Your task to perform on an android device: Install the Weather app Image 0: 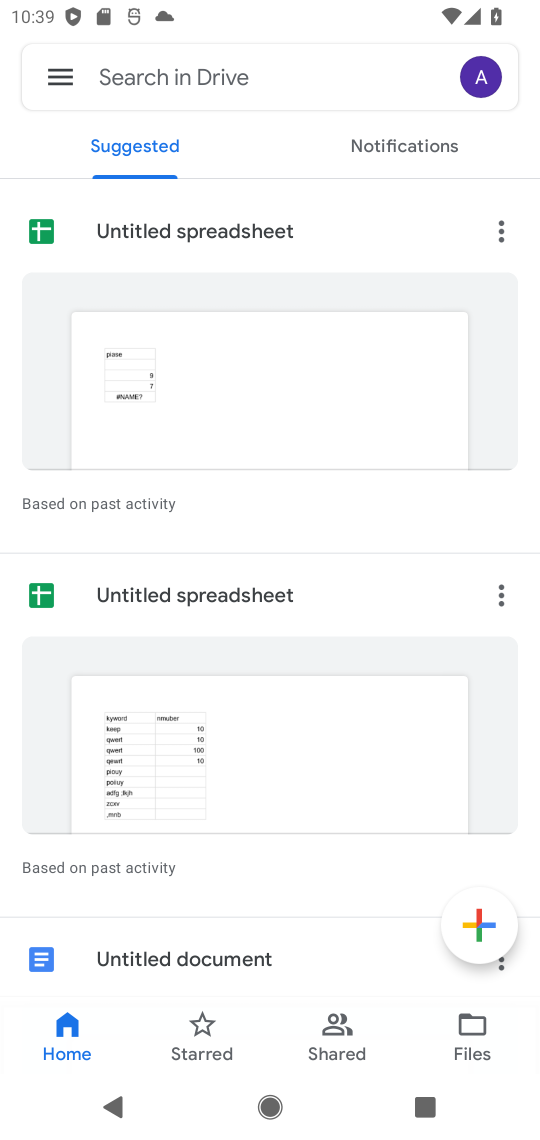
Step 0: press home button
Your task to perform on an android device: Install the Weather app Image 1: 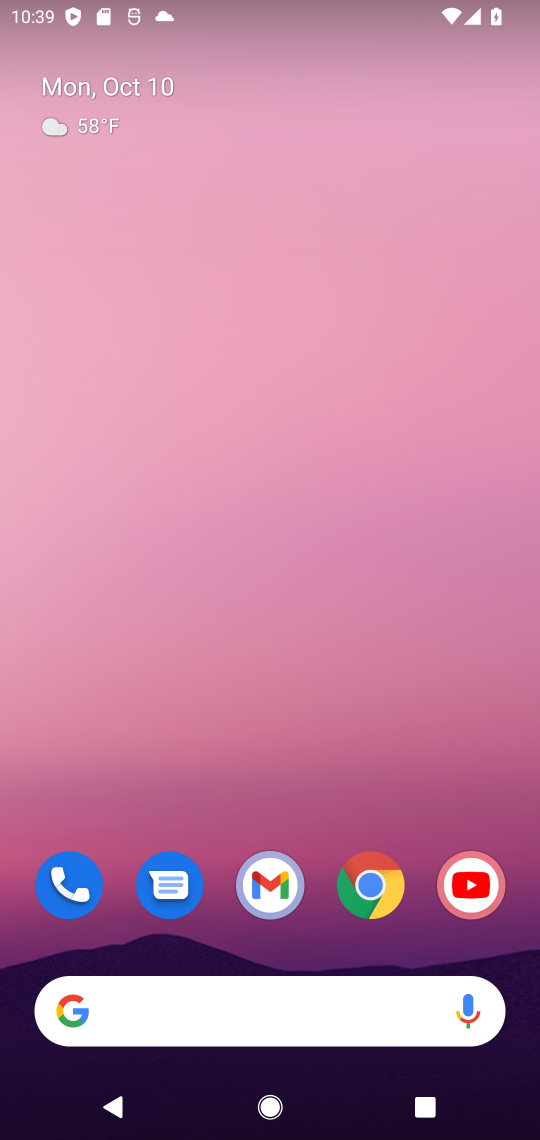
Step 1: drag from (397, 749) to (426, 227)
Your task to perform on an android device: Install the Weather app Image 2: 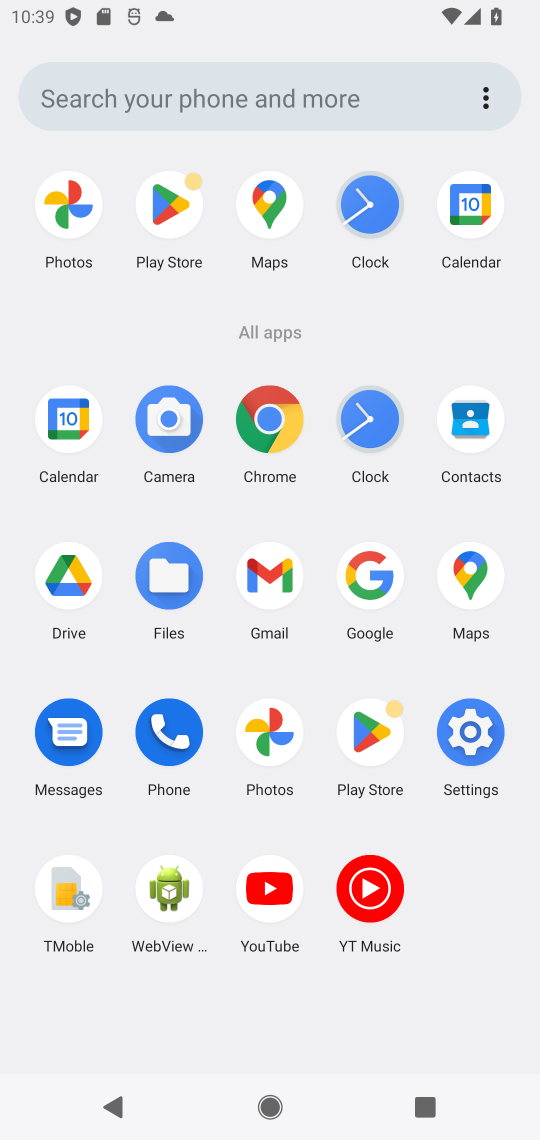
Step 2: click (378, 725)
Your task to perform on an android device: Install the Weather app Image 3: 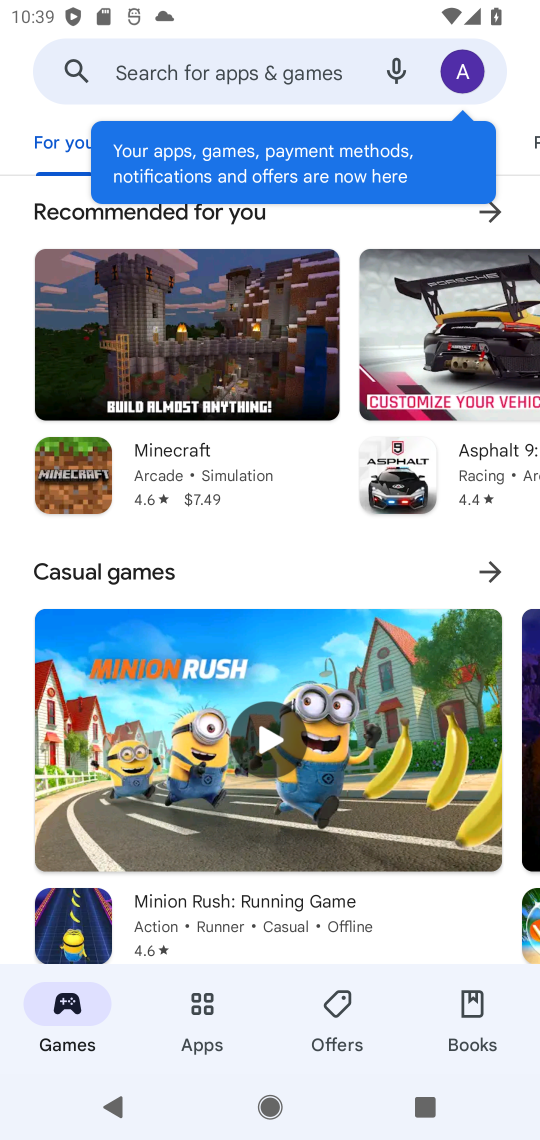
Step 3: click (164, 71)
Your task to perform on an android device: Install the Weather app Image 4: 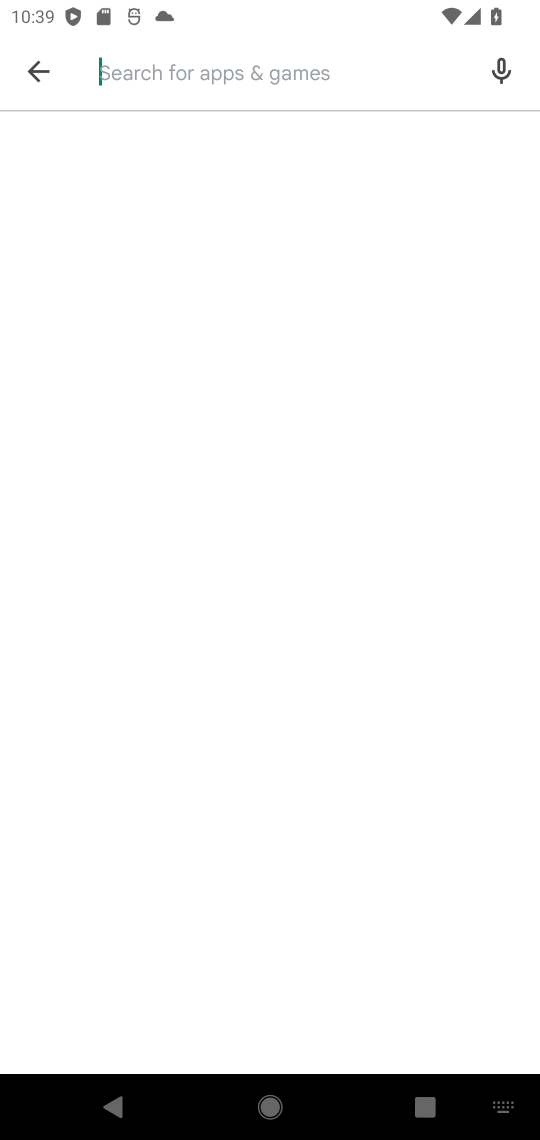
Step 4: type "weather"
Your task to perform on an android device: Install the Weather app Image 5: 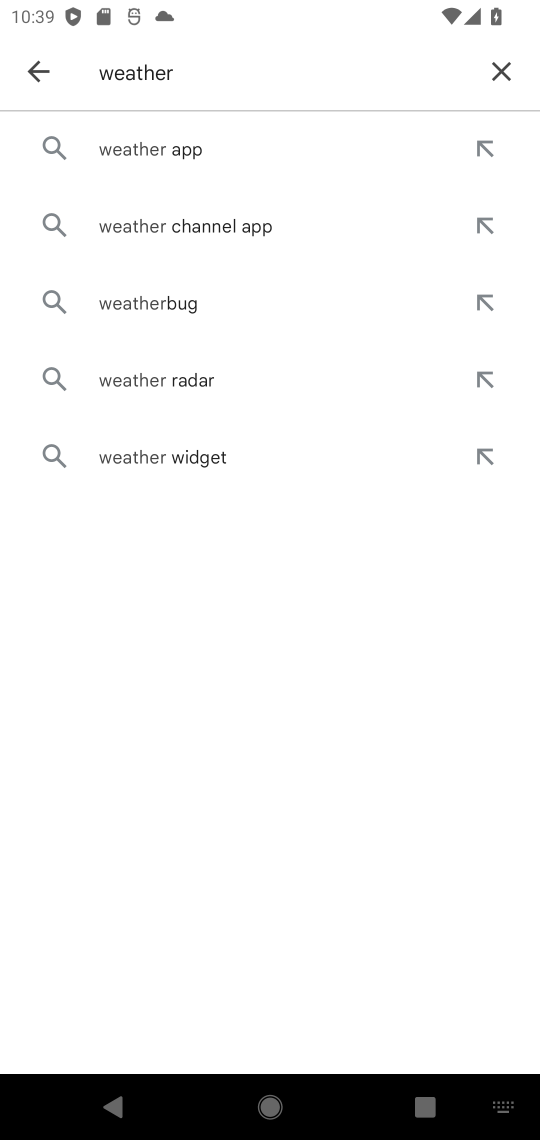
Step 5: click (200, 151)
Your task to perform on an android device: Install the Weather app Image 6: 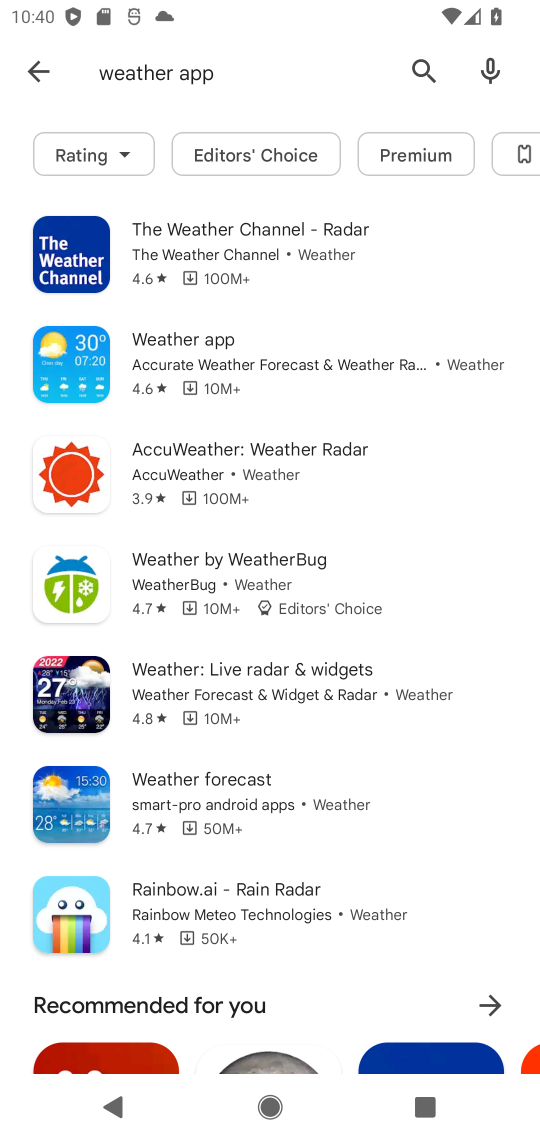
Step 6: click (263, 348)
Your task to perform on an android device: Install the Weather app Image 7: 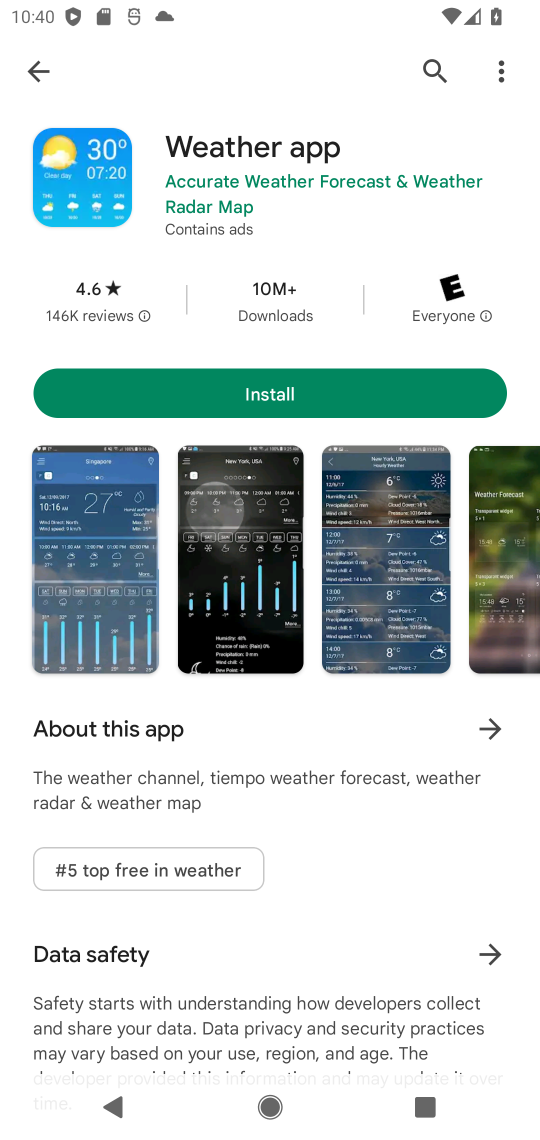
Step 7: click (348, 389)
Your task to perform on an android device: Install the Weather app Image 8: 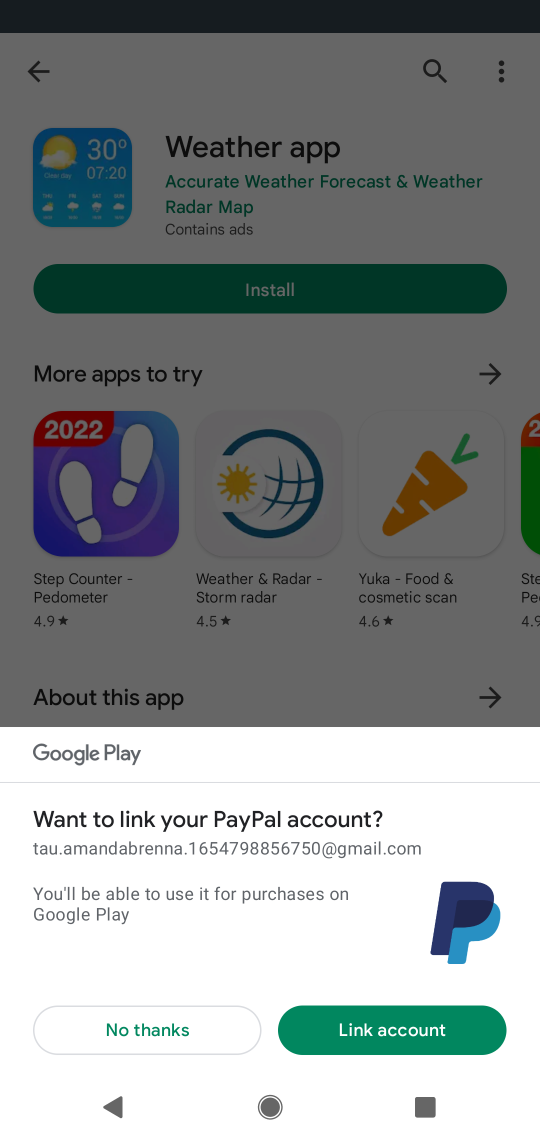
Step 8: click (190, 1028)
Your task to perform on an android device: Install the Weather app Image 9: 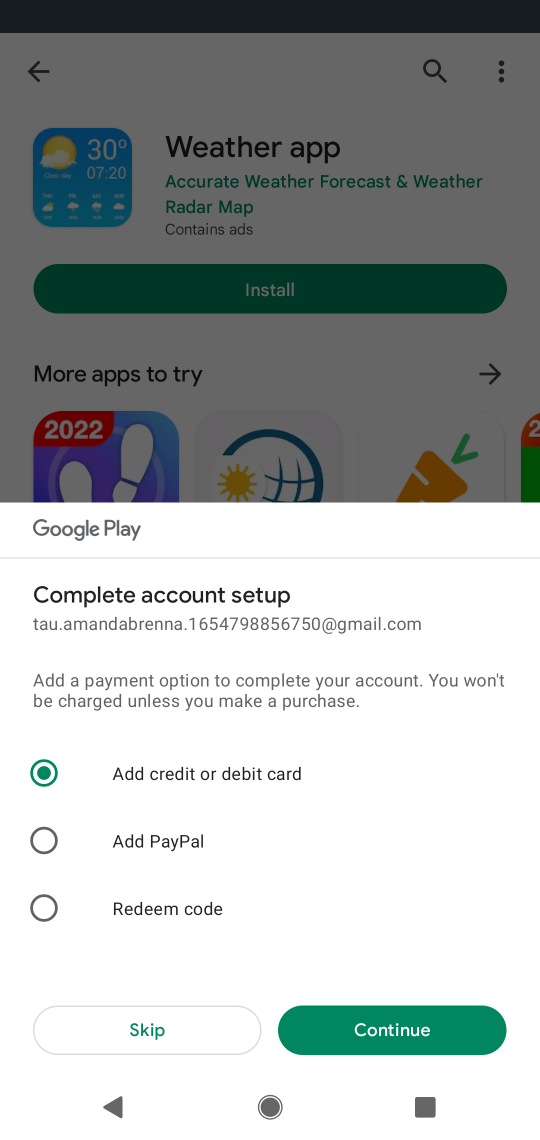
Step 9: click (148, 1027)
Your task to perform on an android device: Install the Weather app Image 10: 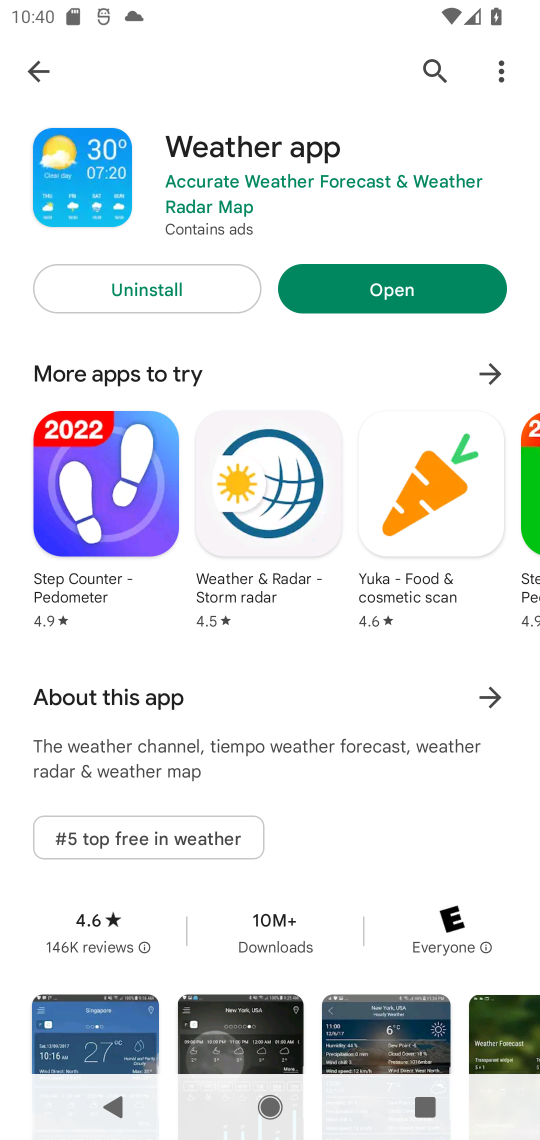
Step 10: task complete